Your task to perform on an android device: When is my next appointment? Image 0: 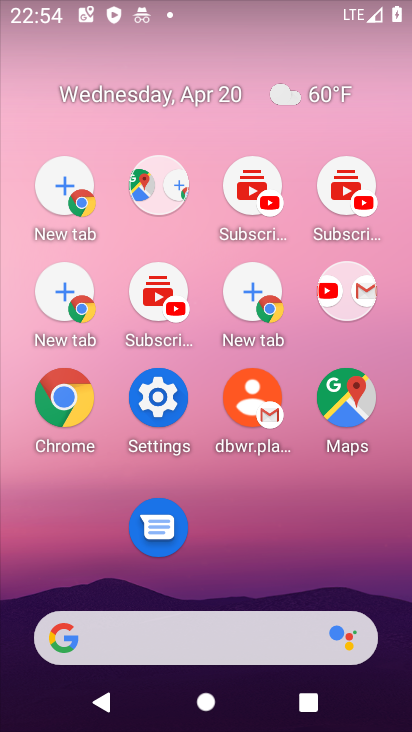
Step 0: drag from (269, 719) to (160, 56)
Your task to perform on an android device: When is my next appointment? Image 1: 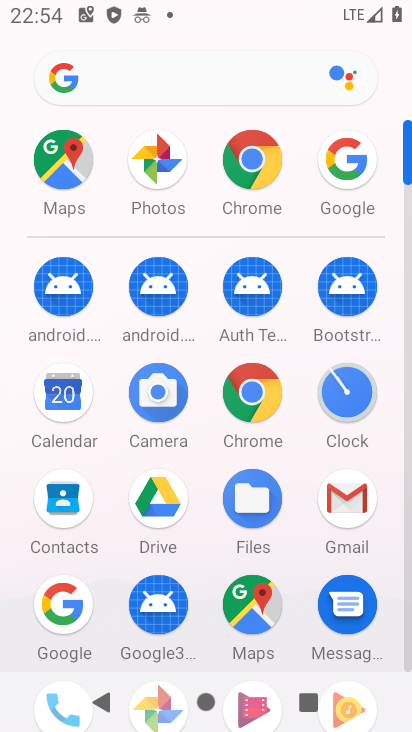
Step 1: click (59, 403)
Your task to perform on an android device: When is my next appointment? Image 2: 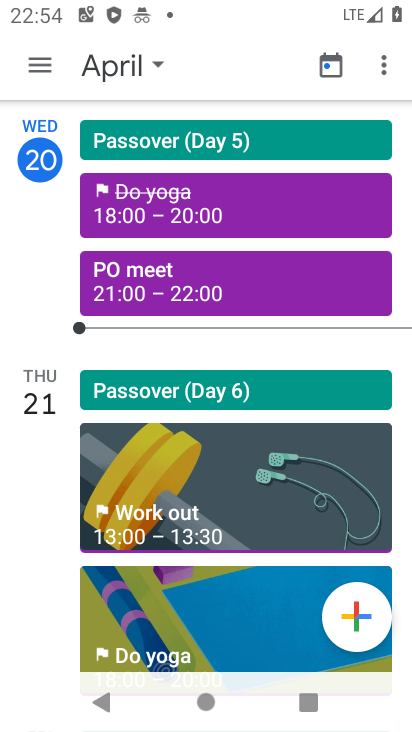
Step 2: drag from (129, 374) to (117, 129)
Your task to perform on an android device: When is my next appointment? Image 3: 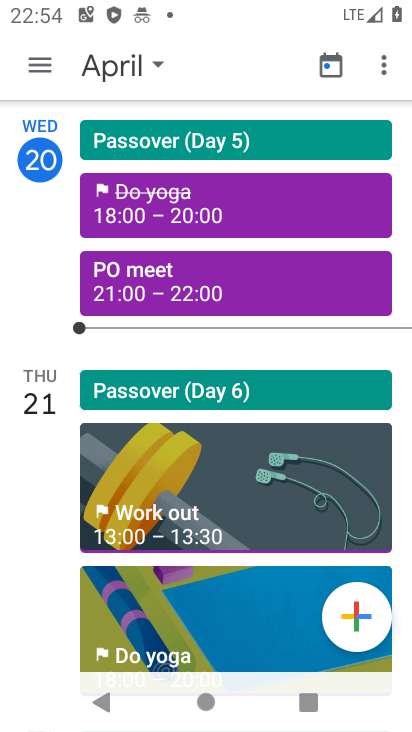
Step 3: drag from (217, 435) to (226, 271)
Your task to perform on an android device: When is my next appointment? Image 4: 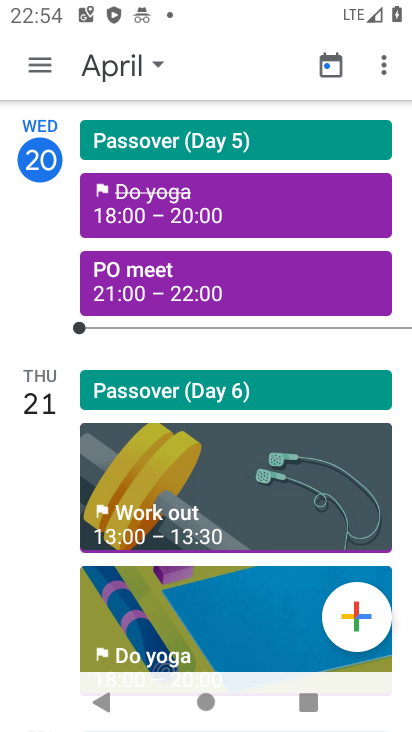
Step 4: drag from (180, 430) to (148, 331)
Your task to perform on an android device: When is my next appointment? Image 5: 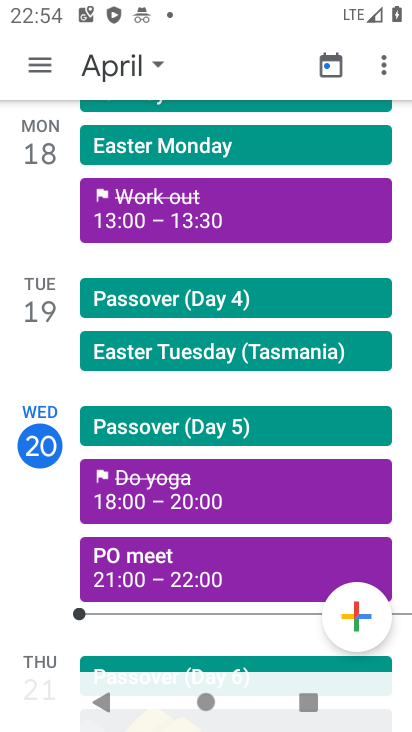
Step 5: drag from (238, 567) to (186, 297)
Your task to perform on an android device: When is my next appointment? Image 6: 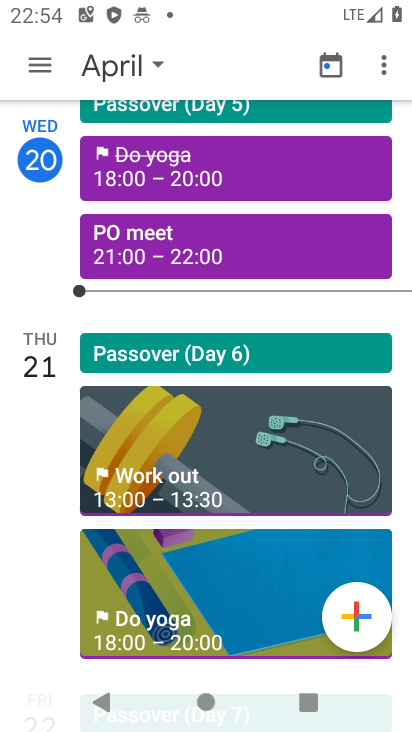
Step 6: drag from (142, 590) to (43, 0)
Your task to perform on an android device: When is my next appointment? Image 7: 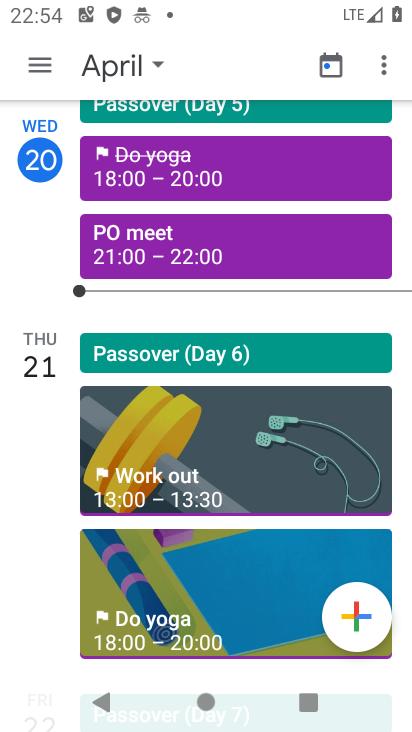
Step 7: drag from (135, 590) to (89, 276)
Your task to perform on an android device: When is my next appointment? Image 8: 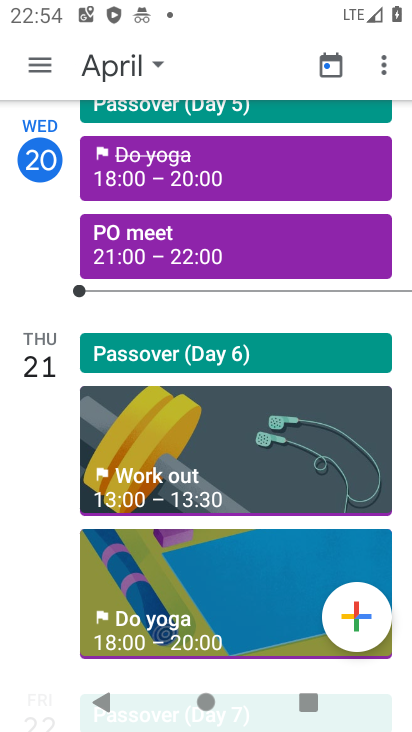
Step 8: drag from (185, 359) to (83, 227)
Your task to perform on an android device: When is my next appointment? Image 9: 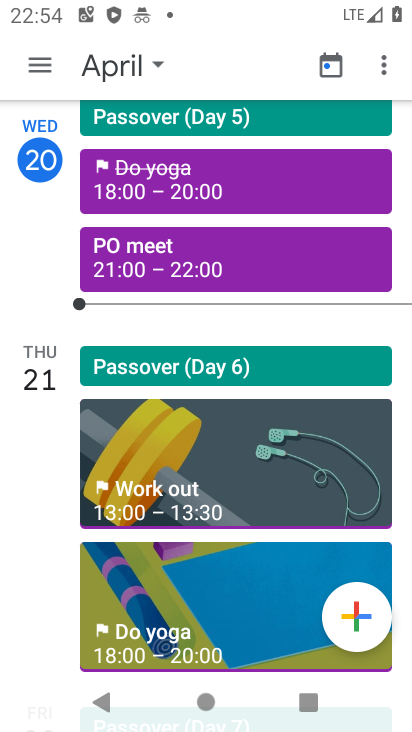
Step 9: click (216, 208)
Your task to perform on an android device: When is my next appointment? Image 10: 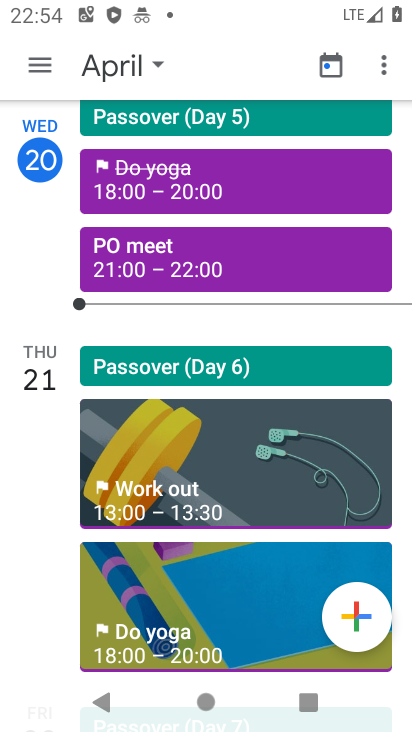
Step 10: click (249, 220)
Your task to perform on an android device: When is my next appointment? Image 11: 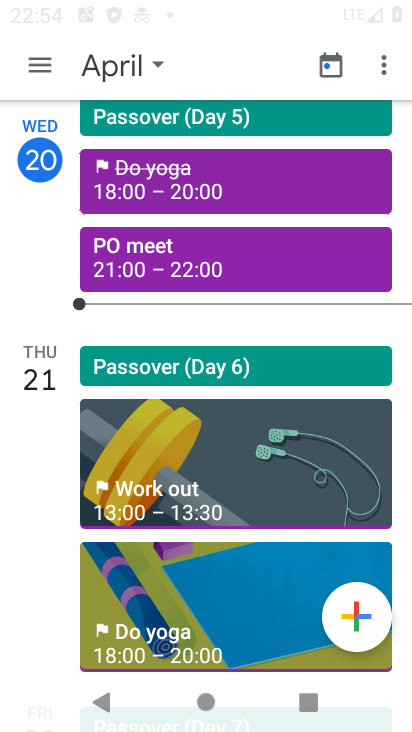
Step 11: click (236, 295)
Your task to perform on an android device: When is my next appointment? Image 12: 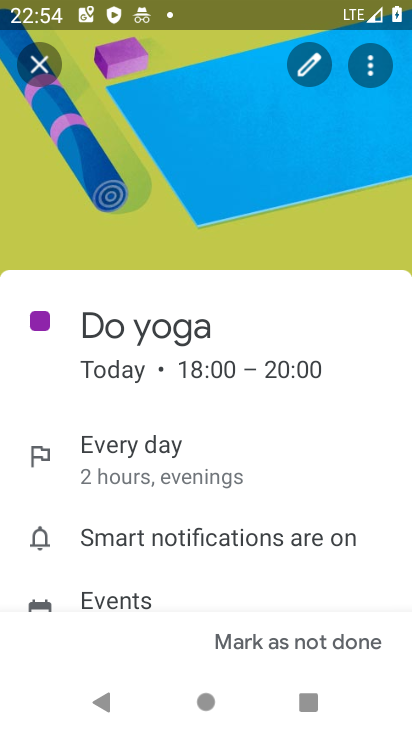
Step 12: click (42, 59)
Your task to perform on an android device: When is my next appointment? Image 13: 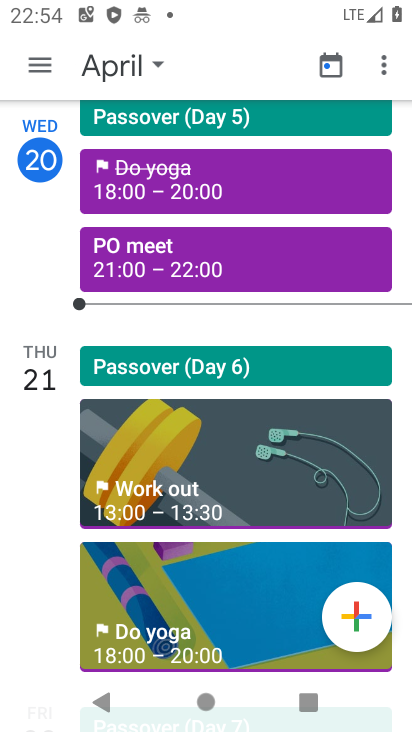
Step 13: drag from (179, 453) to (80, 218)
Your task to perform on an android device: When is my next appointment? Image 14: 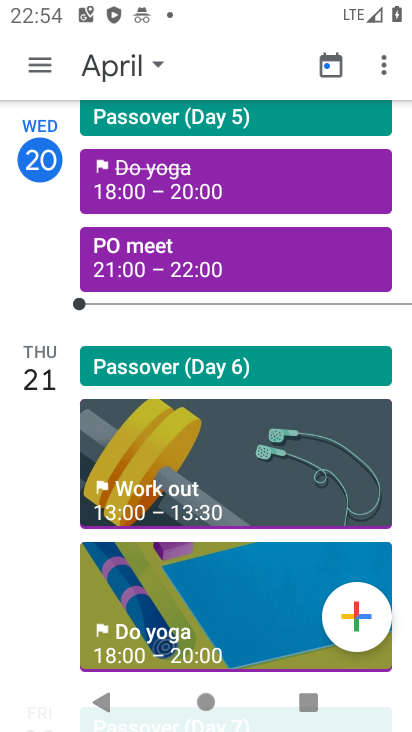
Step 14: drag from (93, 437) to (91, 296)
Your task to perform on an android device: When is my next appointment? Image 15: 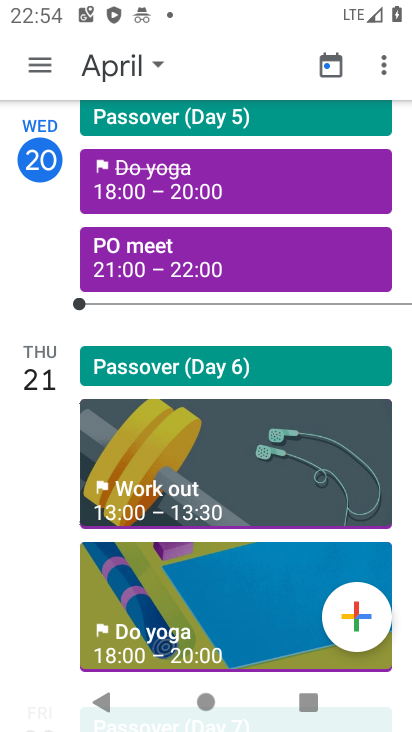
Step 15: drag from (121, 537) to (93, 378)
Your task to perform on an android device: When is my next appointment? Image 16: 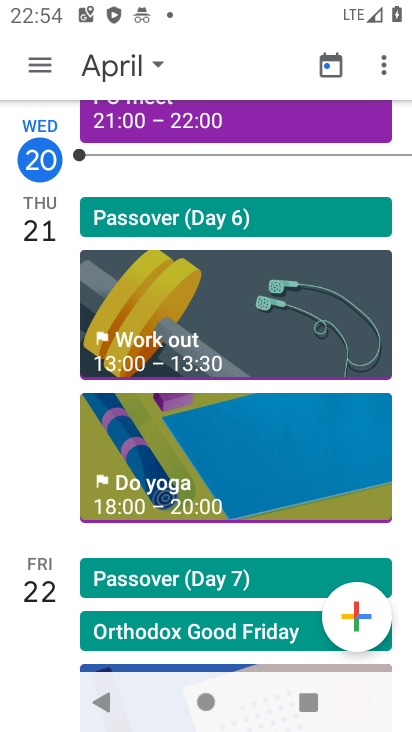
Step 16: drag from (143, 419) to (260, 262)
Your task to perform on an android device: When is my next appointment? Image 17: 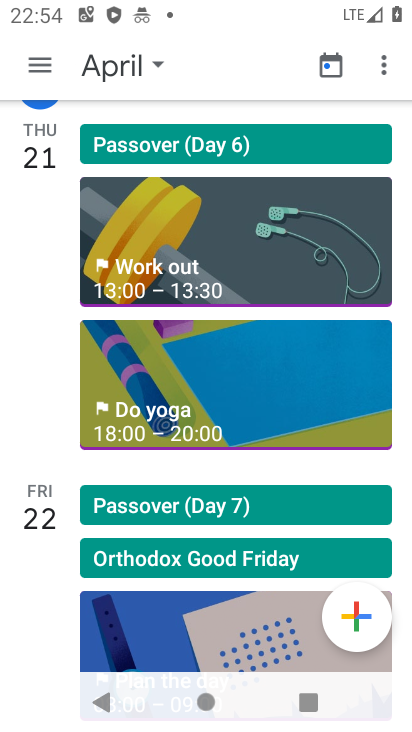
Step 17: drag from (87, 383) to (160, 343)
Your task to perform on an android device: When is my next appointment? Image 18: 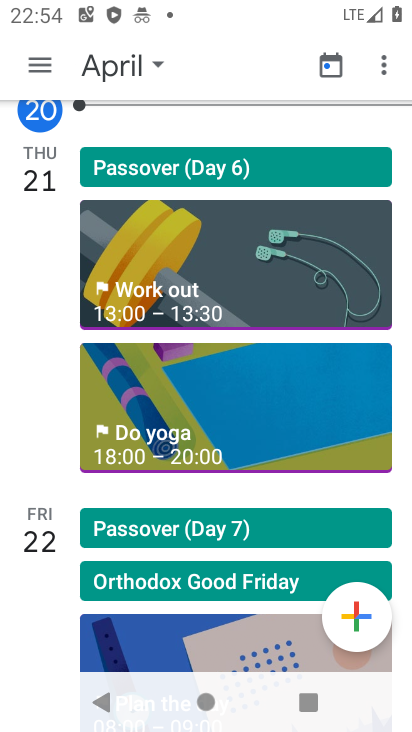
Step 18: drag from (210, 527) to (206, 360)
Your task to perform on an android device: When is my next appointment? Image 19: 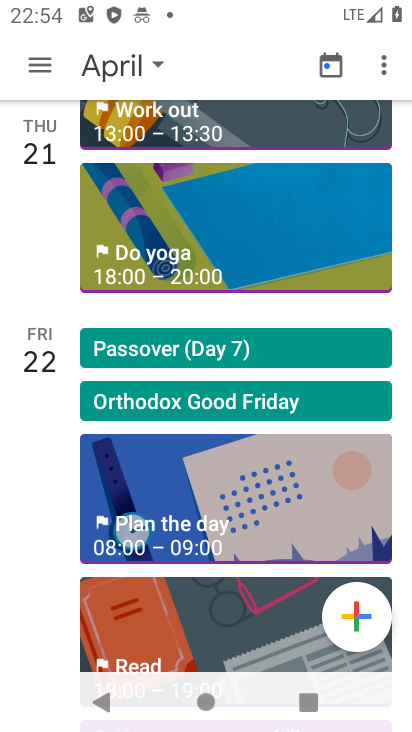
Step 19: drag from (230, 384) to (221, 333)
Your task to perform on an android device: When is my next appointment? Image 20: 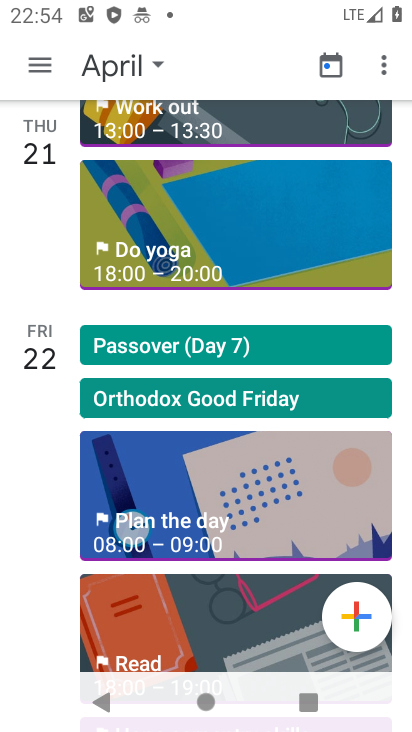
Step 20: drag from (190, 526) to (180, 159)
Your task to perform on an android device: When is my next appointment? Image 21: 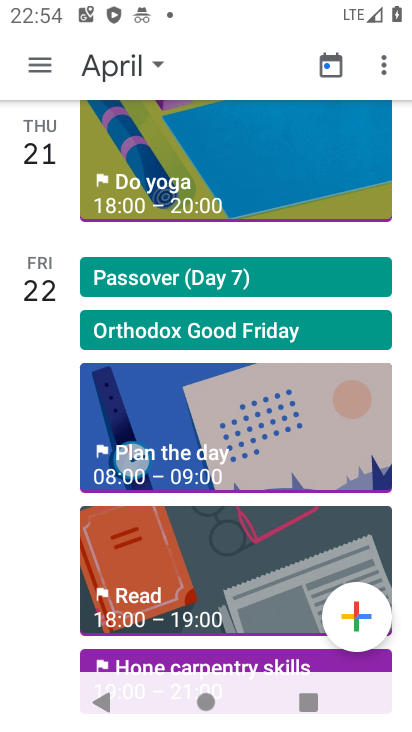
Step 21: drag from (252, 290) to (239, 213)
Your task to perform on an android device: When is my next appointment? Image 22: 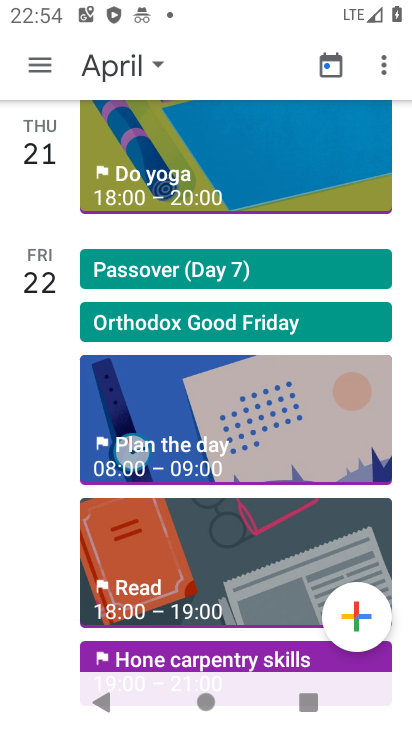
Step 22: drag from (117, 359) to (98, 223)
Your task to perform on an android device: When is my next appointment? Image 23: 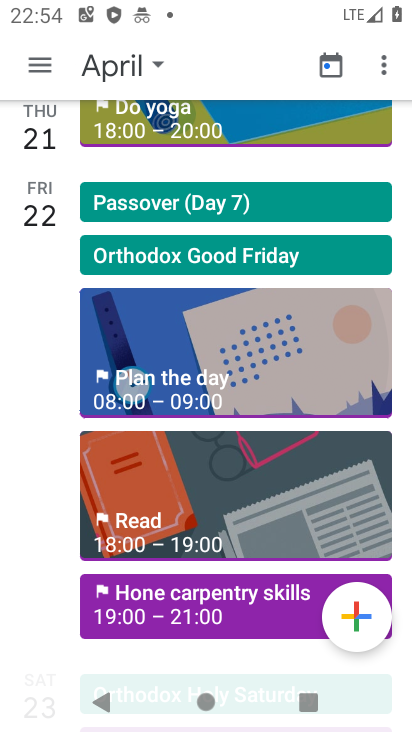
Step 23: drag from (189, 533) to (157, 262)
Your task to perform on an android device: When is my next appointment? Image 24: 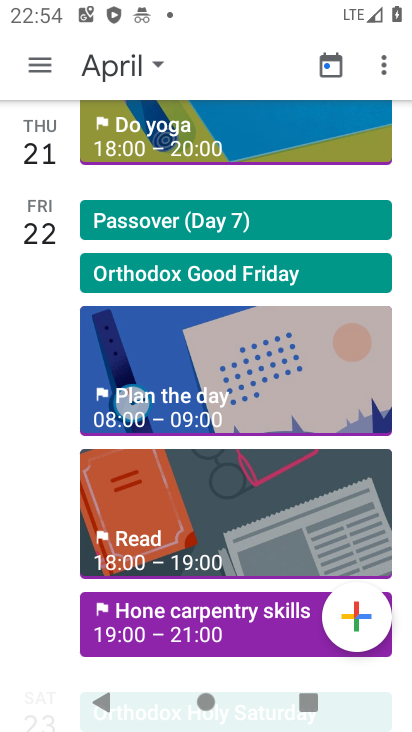
Step 24: drag from (202, 408) to (300, 170)
Your task to perform on an android device: When is my next appointment? Image 25: 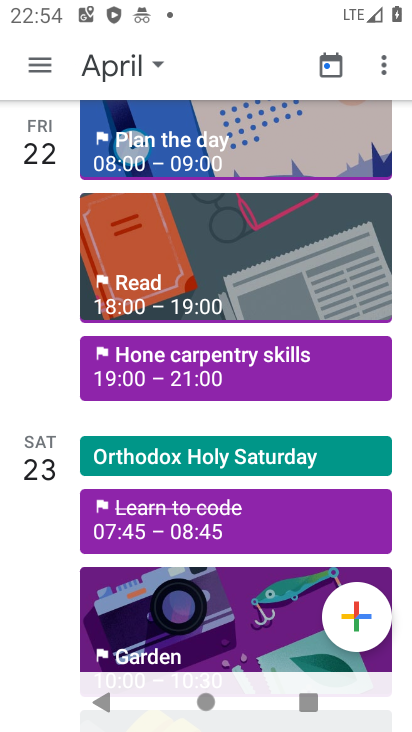
Step 25: drag from (245, 372) to (245, 316)
Your task to perform on an android device: When is my next appointment? Image 26: 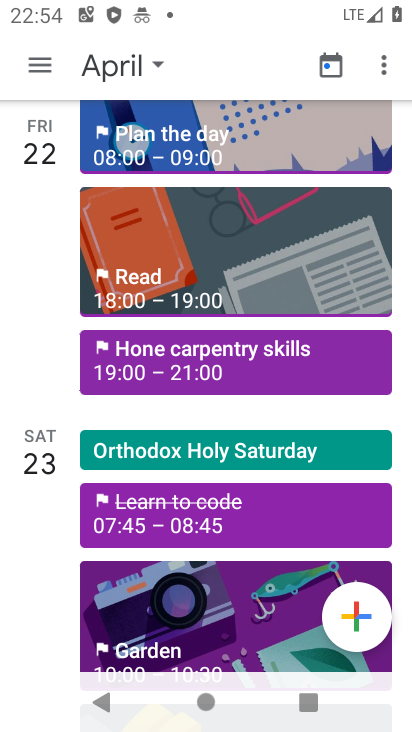
Step 26: drag from (184, 540) to (128, 443)
Your task to perform on an android device: When is my next appointment? Image 27: 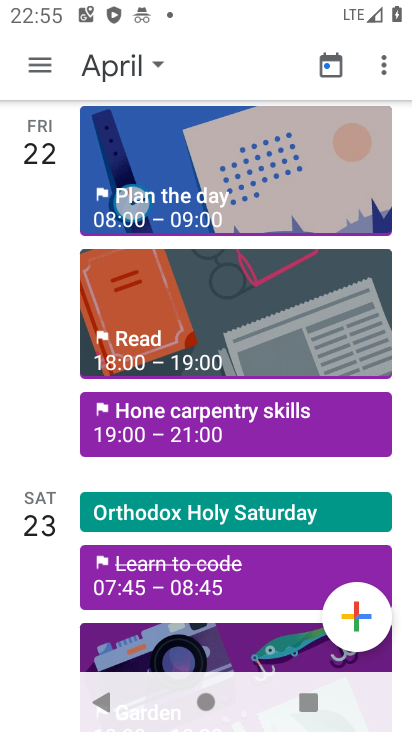
Step 27: click (124, 442)
Your task to perform on an android device: When is my next appointment? Image 28: 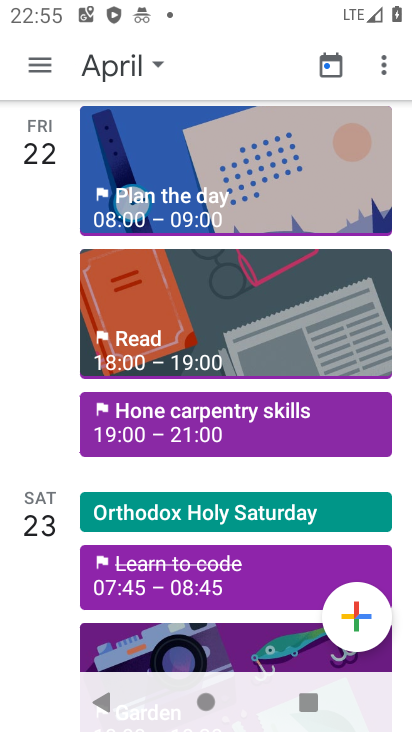
Step 28: drag from (120, 457) to (121, 234)
Your task to perform on an android device: When is my next appointment? Image 29: 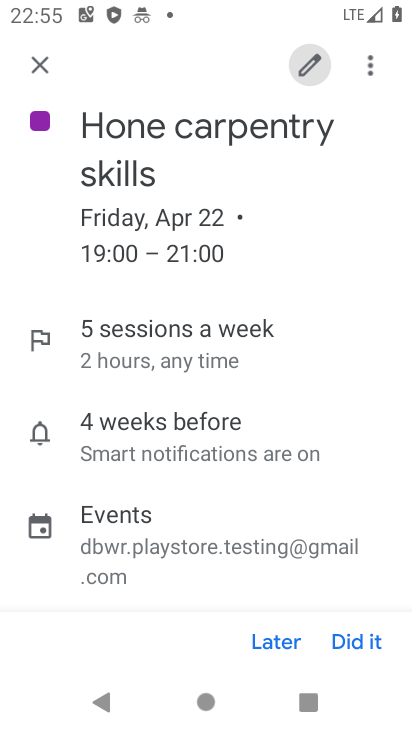
Step 29: drag from (145, 451) to (125, 267)
Your task to perform on an android device: When is my next appointment? Image 30: 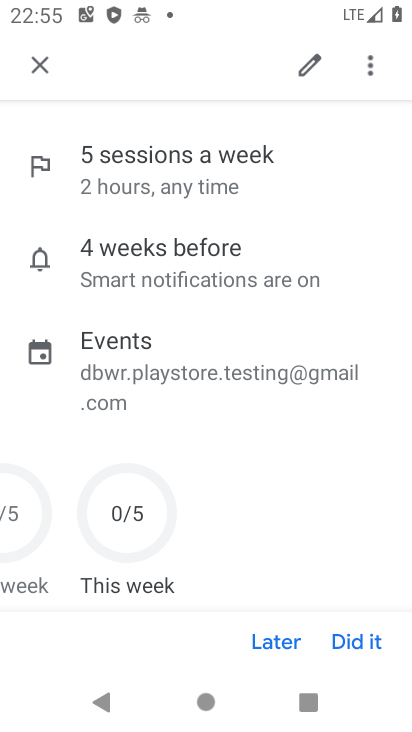
Step 30: click (44, 60)
Your task to perform on an android device: When is my next appointment? Image 31: 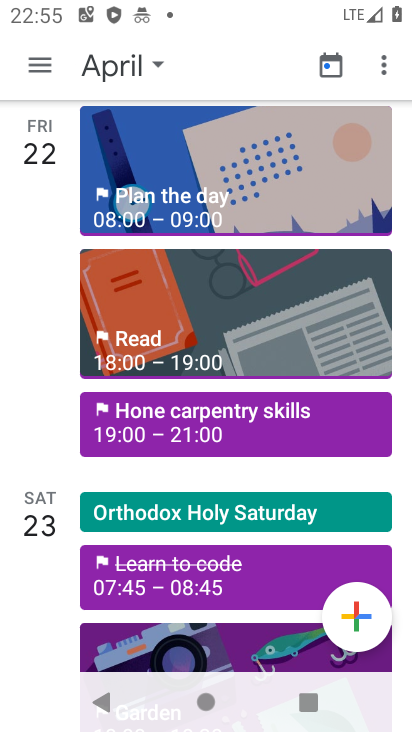
Step 31: task complete